Your task to perform on an android device: Search for vegetarian restaurants on Maps Image 0: 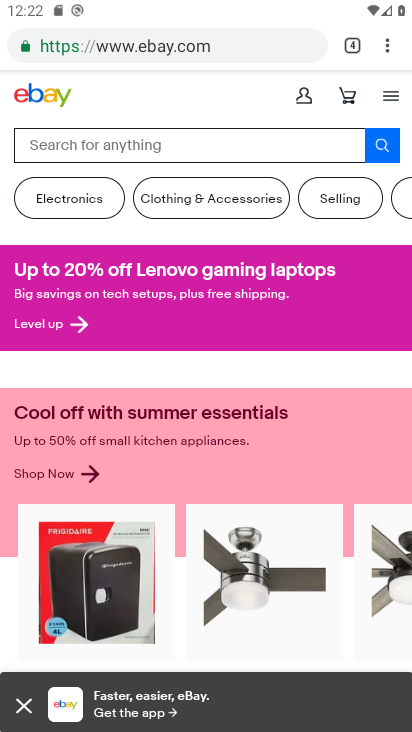
Step 0: press home button
Your task to perform on an android device: Search for vegetarian restaurants on Maps Image 1: 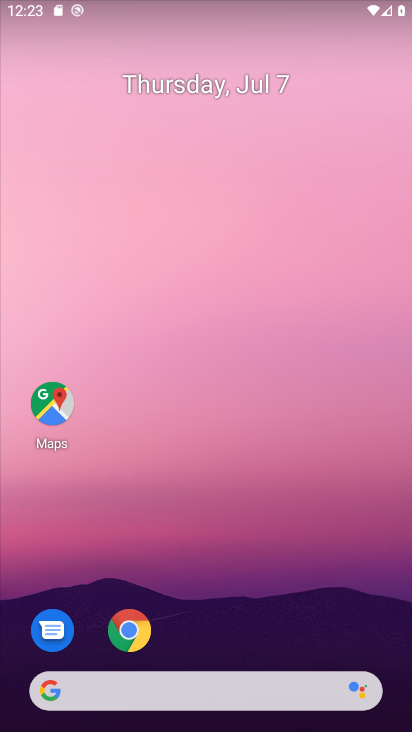
Step 1: click (55, 401)
Your task to perform on an android device: Search for vegetarian restaurants on Maps Image 2: 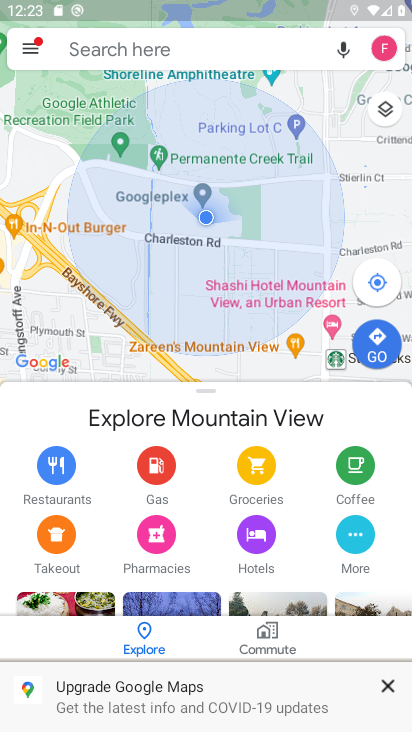
Step 2: click (200, 44)
Your task to perform on an android device: Search for vegetarian restaurants on Maps Image 3: 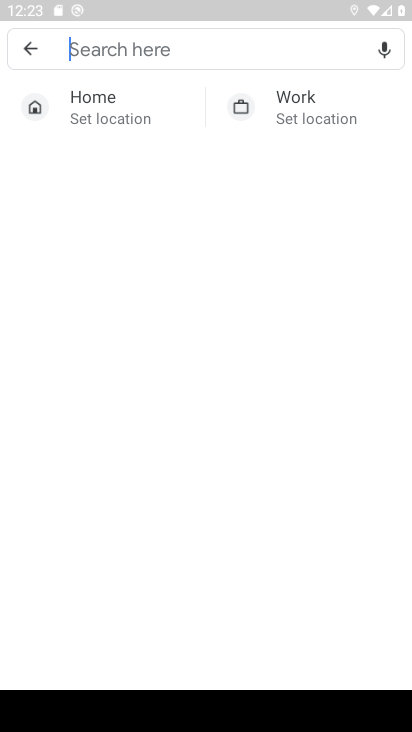
Step 3: type "vegetarian restaurant "
Your task to perform on an android device: Search for vegetarian restaurants on Maps Image 4: 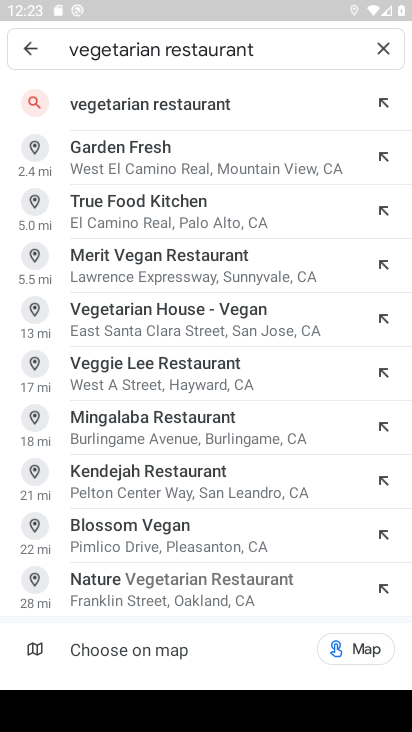
Step 4: click (165, 90)
Your task to perform on an android device: Search for vegetarian restaurants on Maps Image 5: 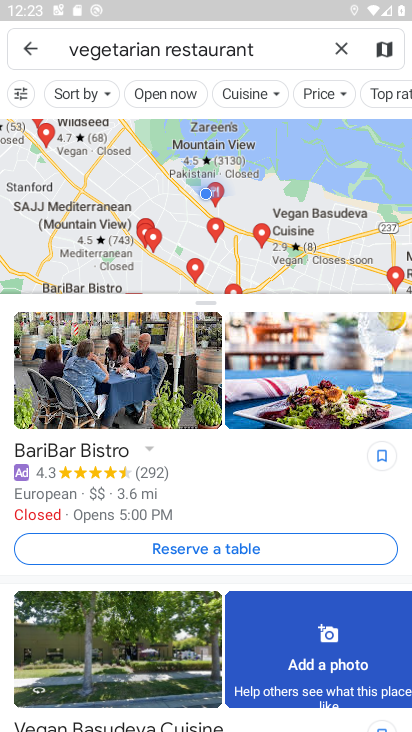
Step 5: task complete